Your task to perform on an android device: Go to Maps Image 0: 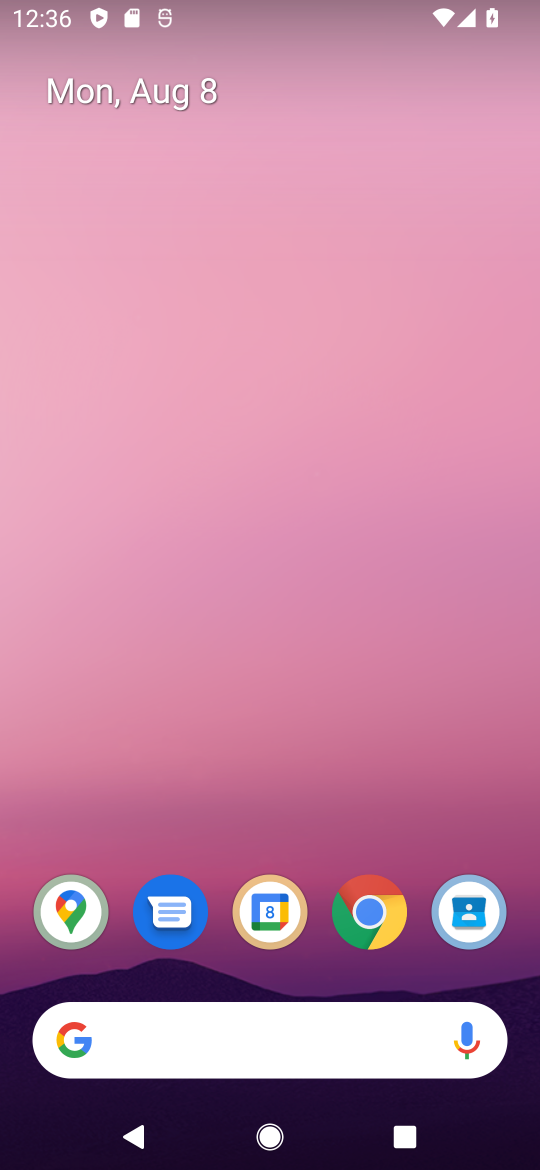
Step 0: click (68, 895)
Your task to perform on an android device: Go to Maps Image 1: 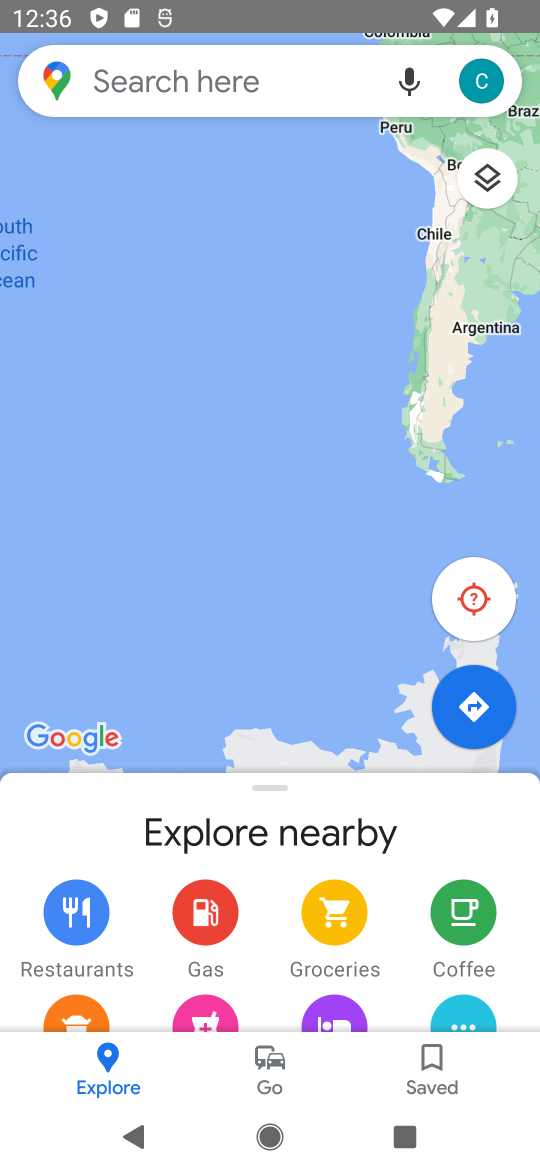
Step 1: task complete